Your task to perform on an android device: change the clock display to analog Image 0: 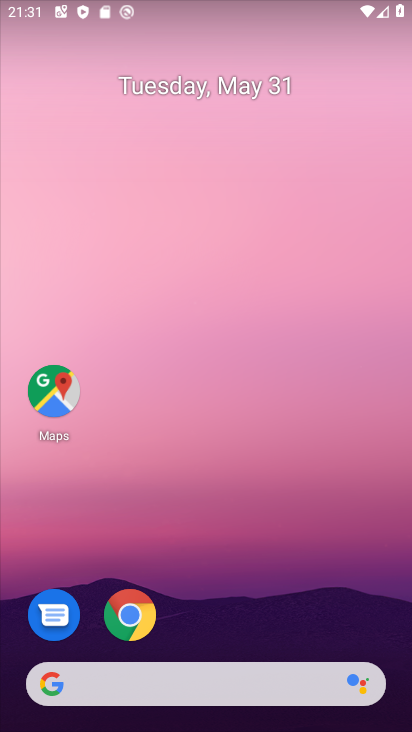
Step 0: drag from (263, 631) to (223, 141)
Your task to perform on an android device: change the clock display to analog Image 1: 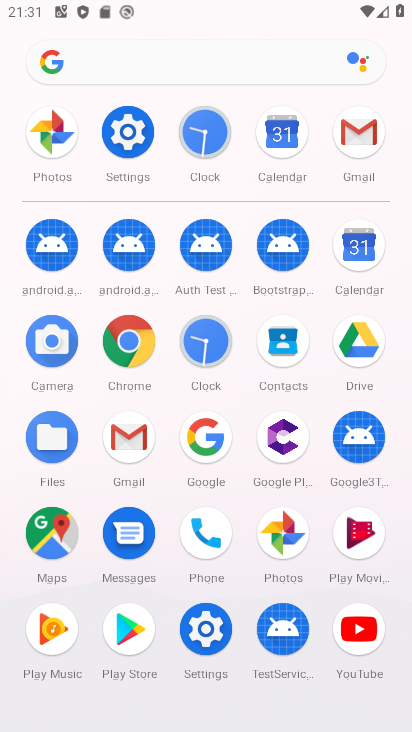
Step 1: click (198, 126)
Your task to perform on an android device: change the clock display to analog Image 2: 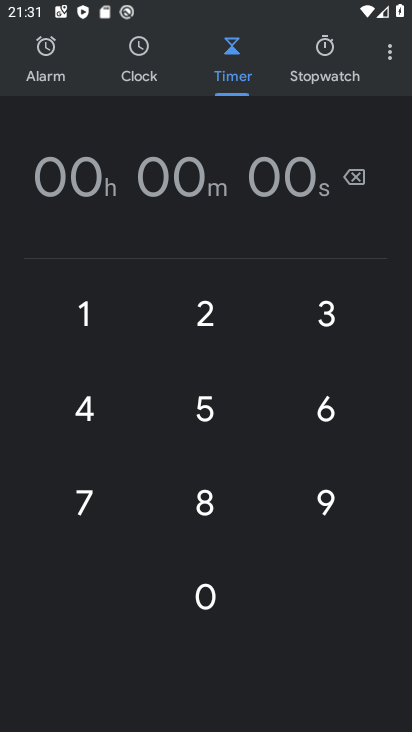
Step 2: click (393, 56)
Your task to perform on an android device: change the clock display to analog Image 3: 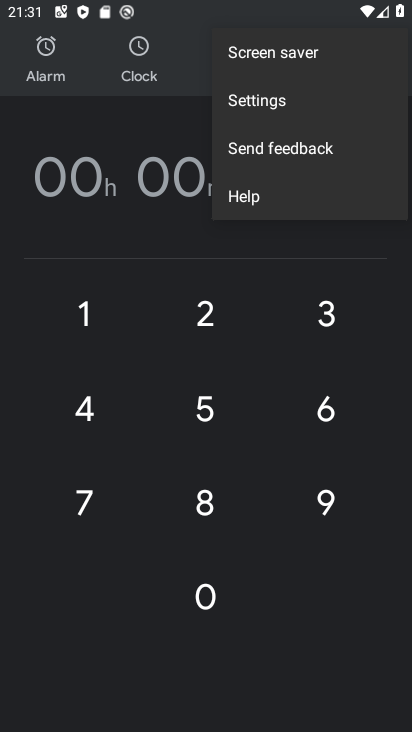
Step 3: click (271, 102)
Your task to perform on an android device: change the clock display to analog Image 4: 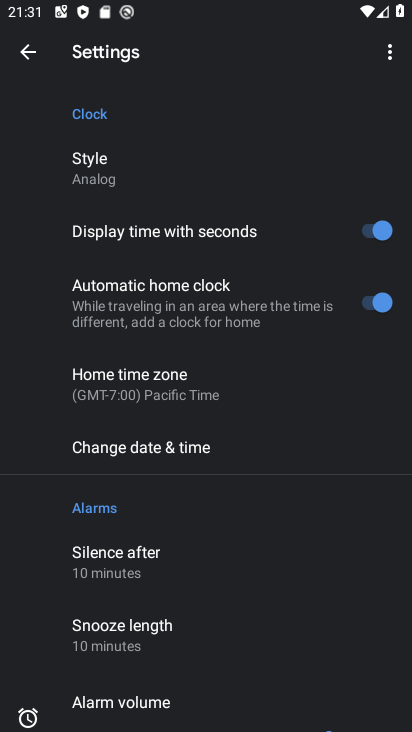
Step 4: click (97, 161)
Your task to perform on an android device: change the clock display to analog Image 5: 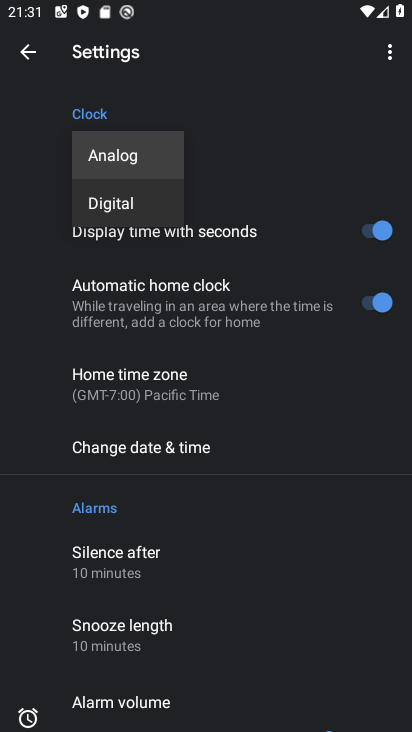
Step 5: task complete